Your task to perform on an android device: Add lenovo thinkpad to the cart on costco.com, then select checkout. Image 0: 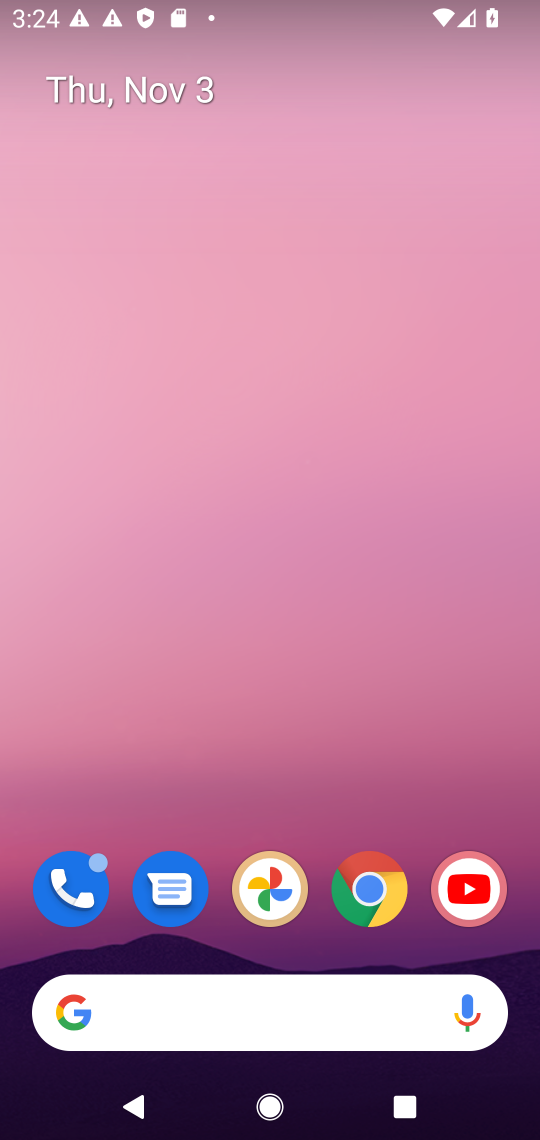
Step 0: click (350, 867)
Your task to perform on an android device: Add lenovo thinkpad to the cart on costco.com, then select checkout. Image 1: 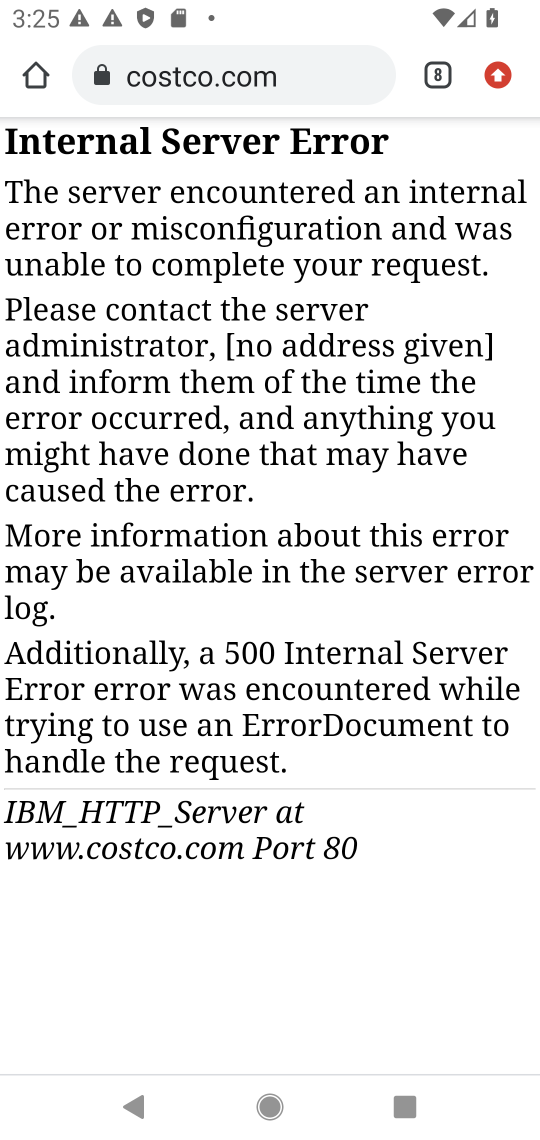
Step 1: task complete